Your task to perform on an android device: Open eBay Image 0: 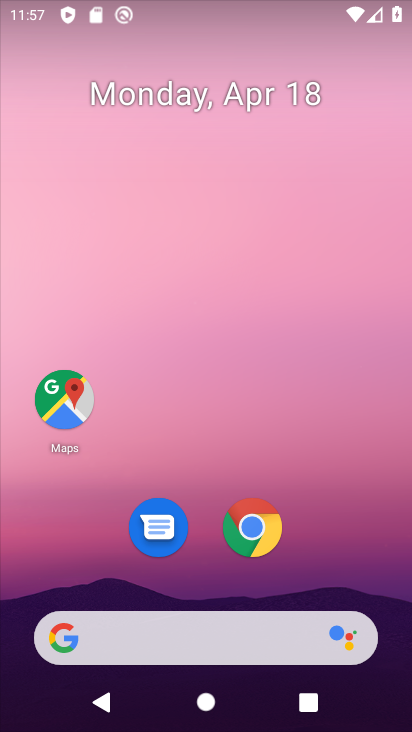
Step 0: click (253, 527)
Your task to perform on an android device: Open eBay Image 1: 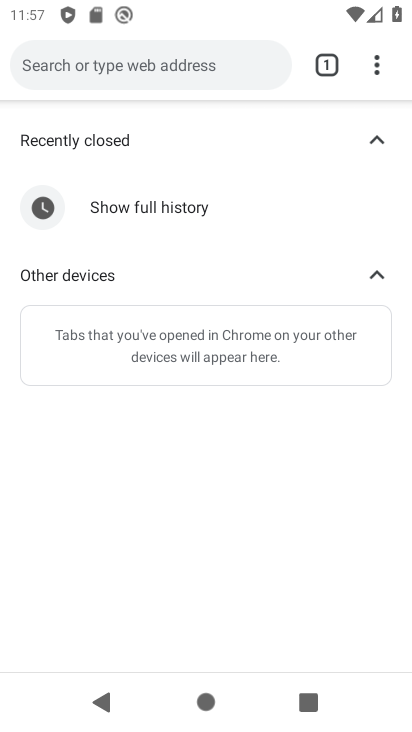
Step 1: click (217, 68)
Your task to perform on an android device: Open eBay Image 2: 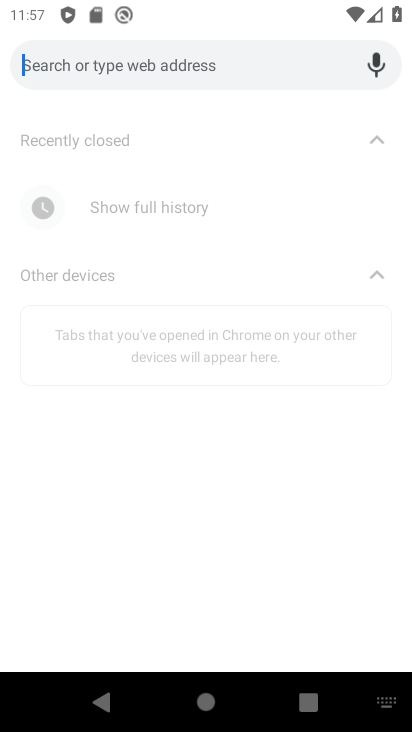
Step 2: type "ebay"
Your task to perform on an android device: Open eBay Image 3: 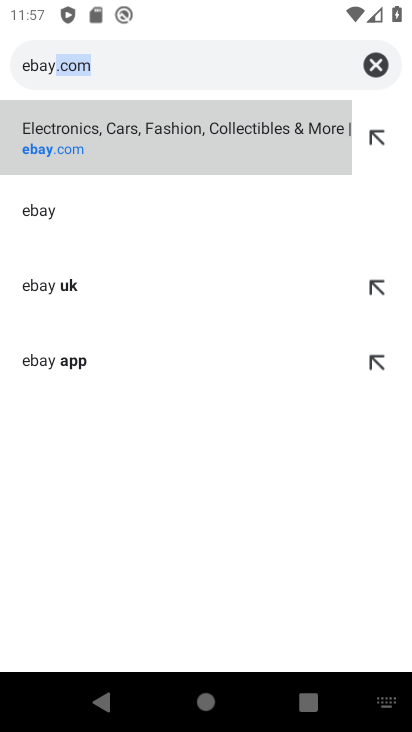
Step 3: click (174, 137)
Your task to perform on an android device: Open eBay Image 4: 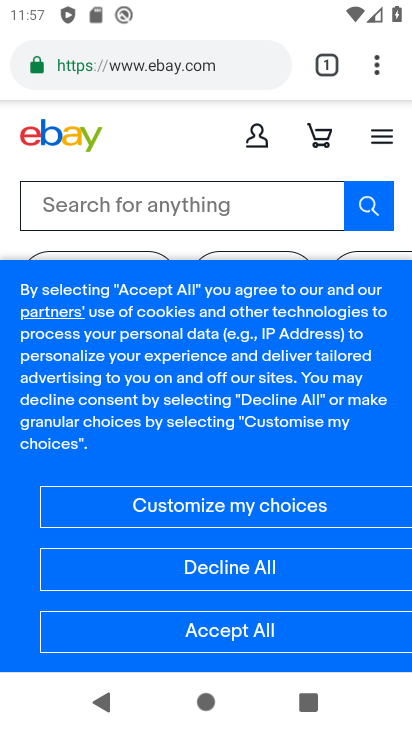
Step 4: task complete